Your task to perform on an android device: Go to CNN.com Image 0: 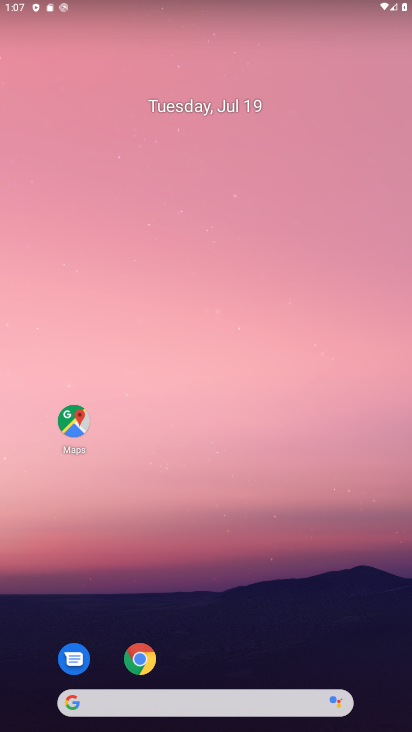
Step 0: press home button
Your task to perform on an android device: Go to CNN.com Image 1: 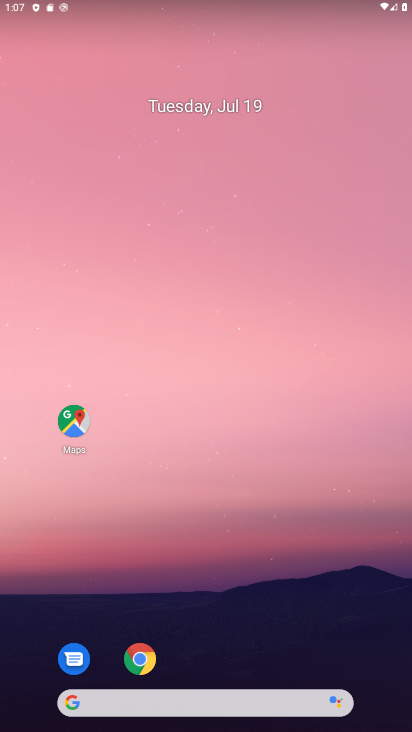
Step 1: press home button
Your task to perform on an android device: Go to CNN.com Image 2: 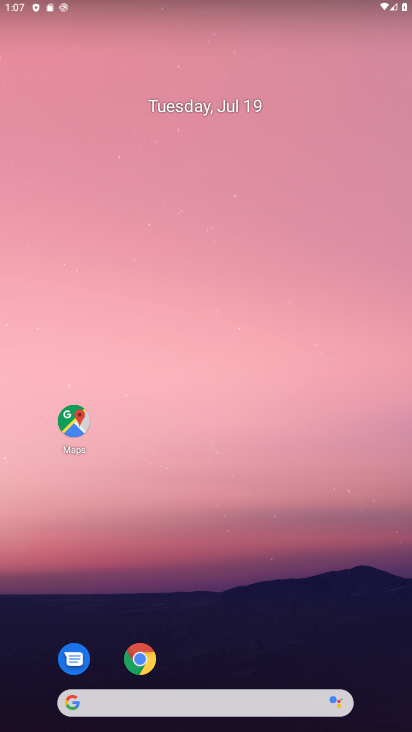
Step 2: click (136, 648)
Your task to perform on an android device: Go to CNN.com Image 3: 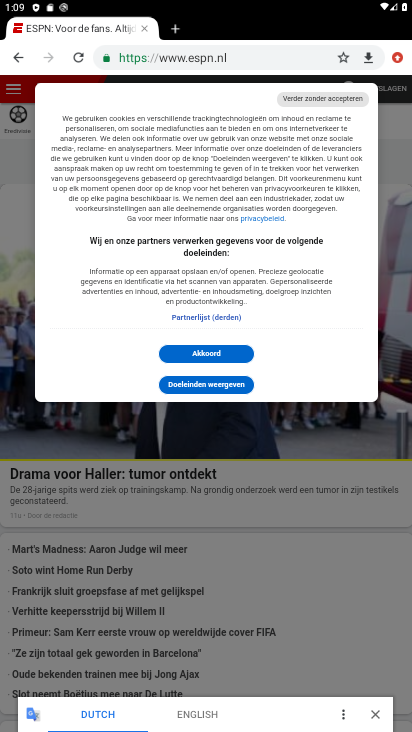
Step 3: click (194, 57)
Your task to perform on an android device: Go to CNN.com Image 4: 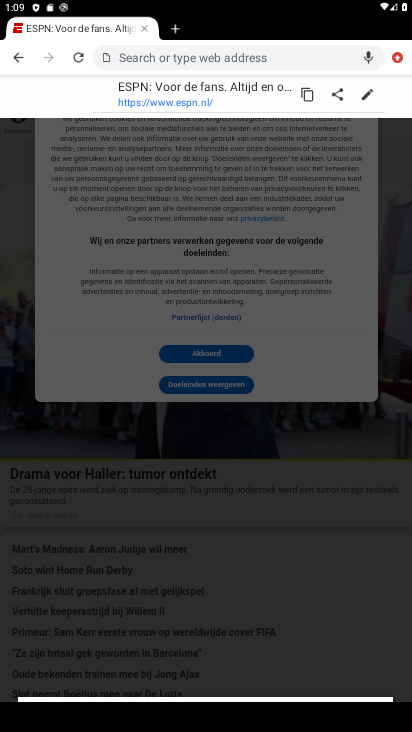
Step 4: type "CNN.com"
Your task to perform on an android device: Go to CNN.com Image 5: 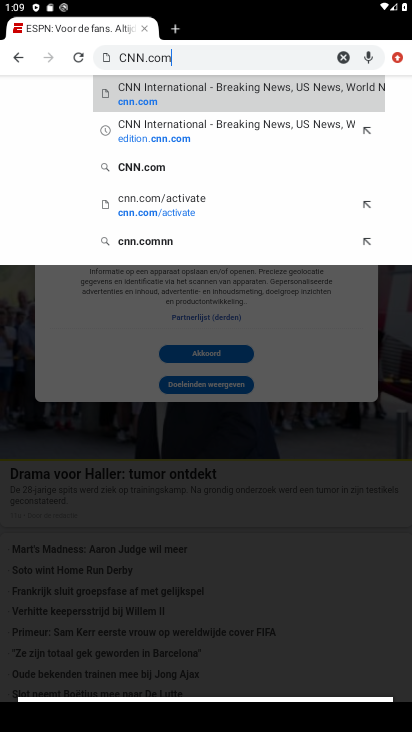
Step 5: click (223, 91)
Your task to perform on an android device: Go to CNN.com Image 6: 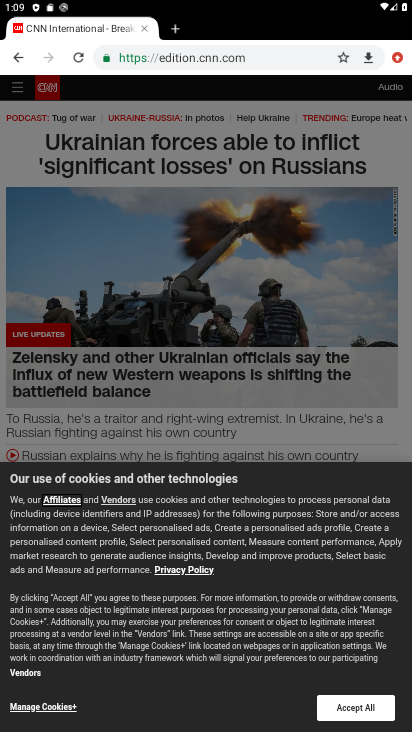
Step 6: task complete